Your task to perform on an android device: Go to Google Image 0: 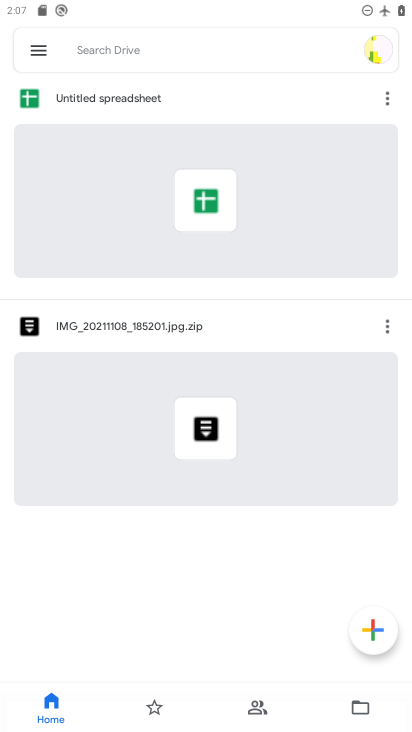
Step 0: press home button
Your task to perform on an android device: Go to Google Image 1: 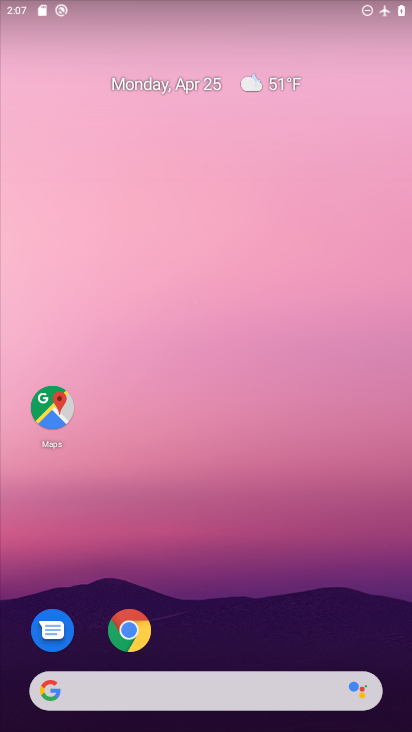
Step 1: drag from (318, 375) to (328, 49)
Your task to perform on an android device: Go to Google Image 2: 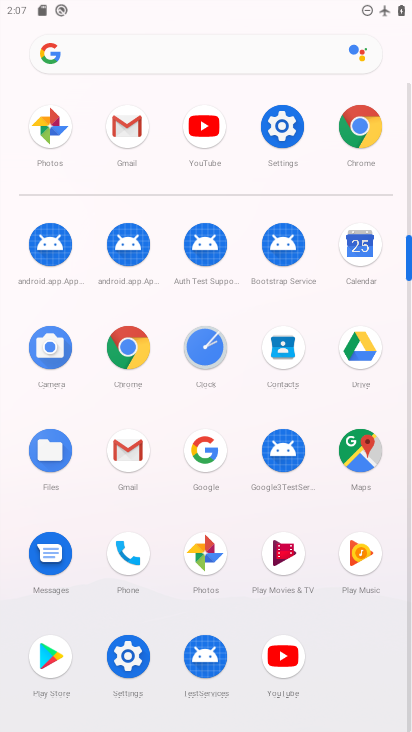
Step 2: click (201, 460)
Your task to perform on an android device: Go to Google Image 3: 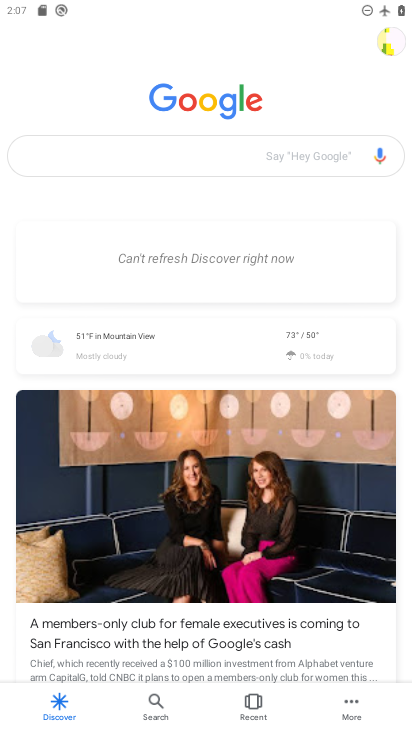
Step 3: task complete